Your task to perform on an android device: What's the weather today? Image 0: 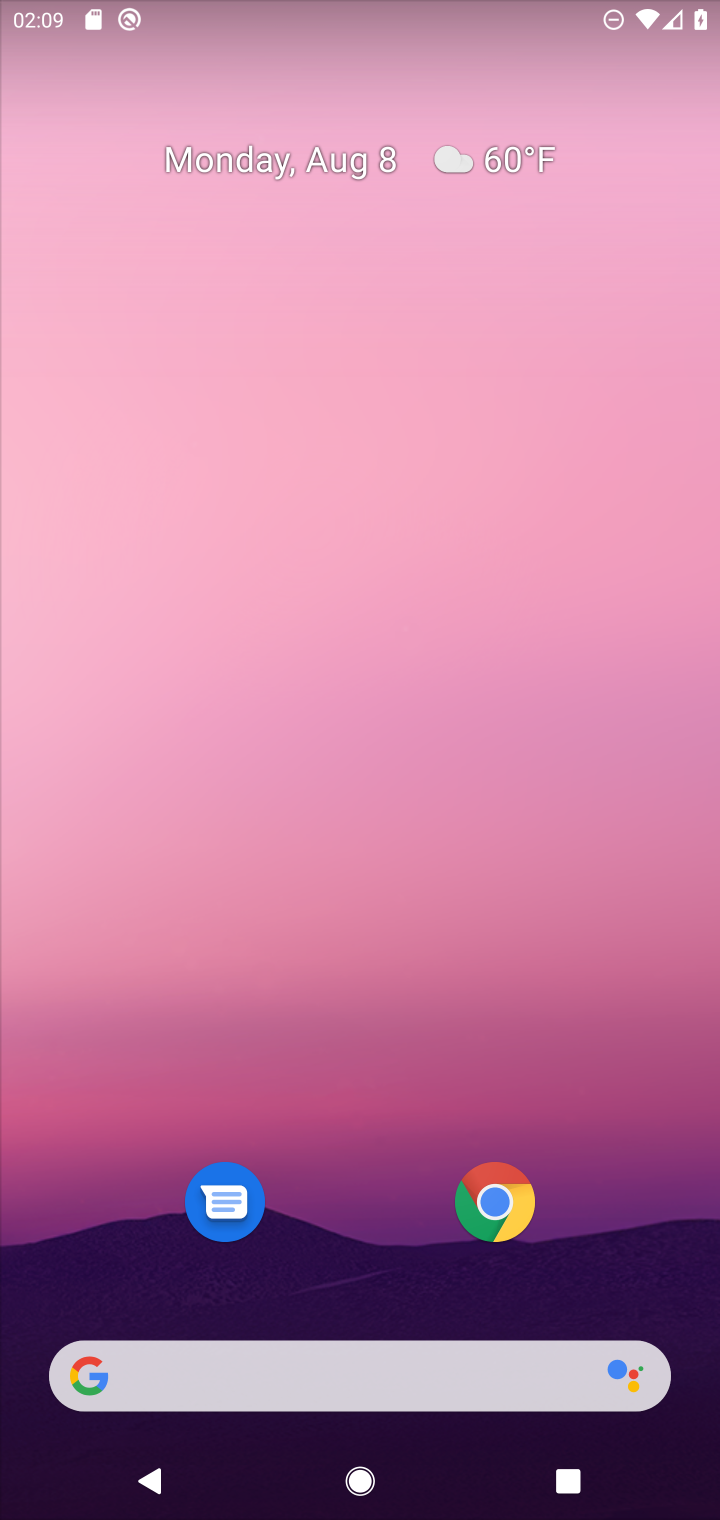
Step 0: press home button
Your task to perform on an android device: What's the weather today? Image 1: 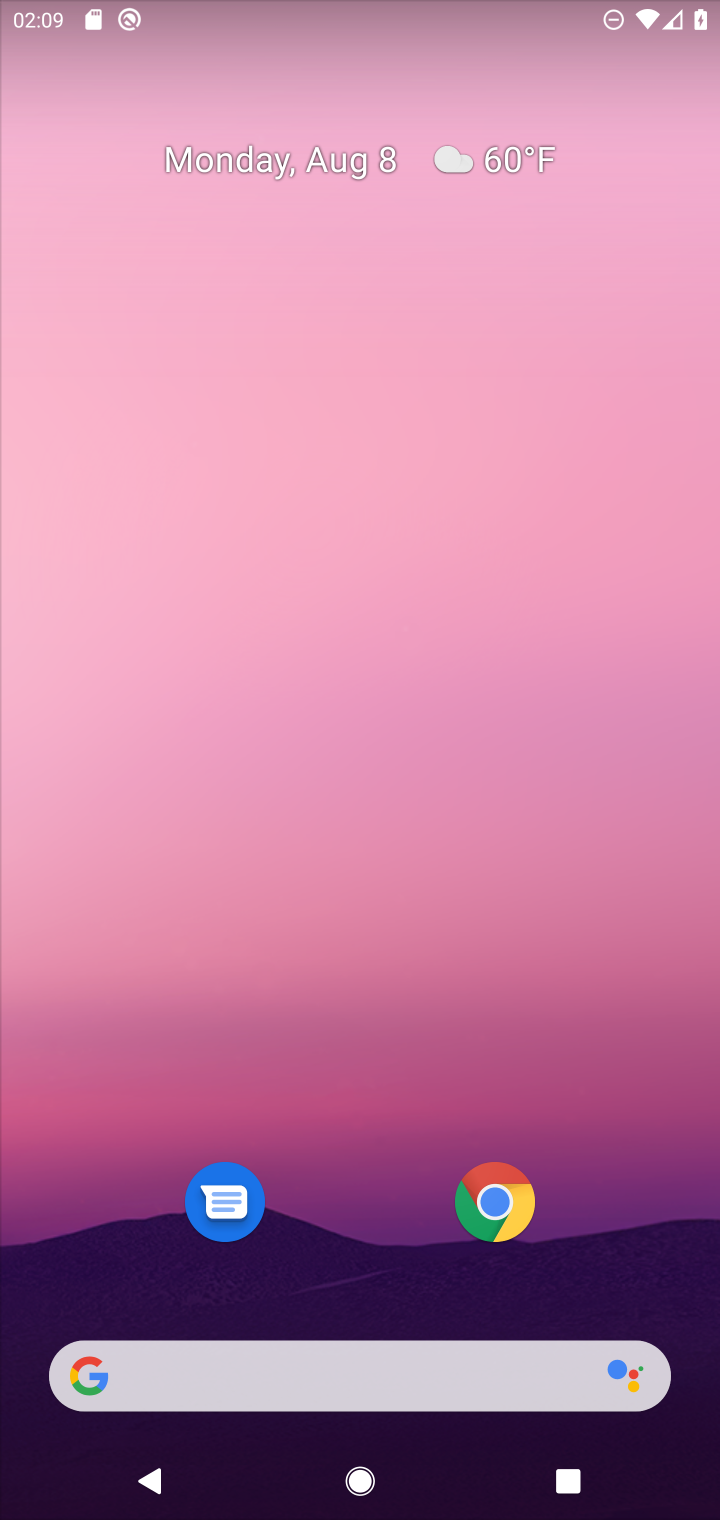
Step 1: drag from (634, 1174) to (629, 341)
Your task to perform on an android device: What's the weather today? Image 2: 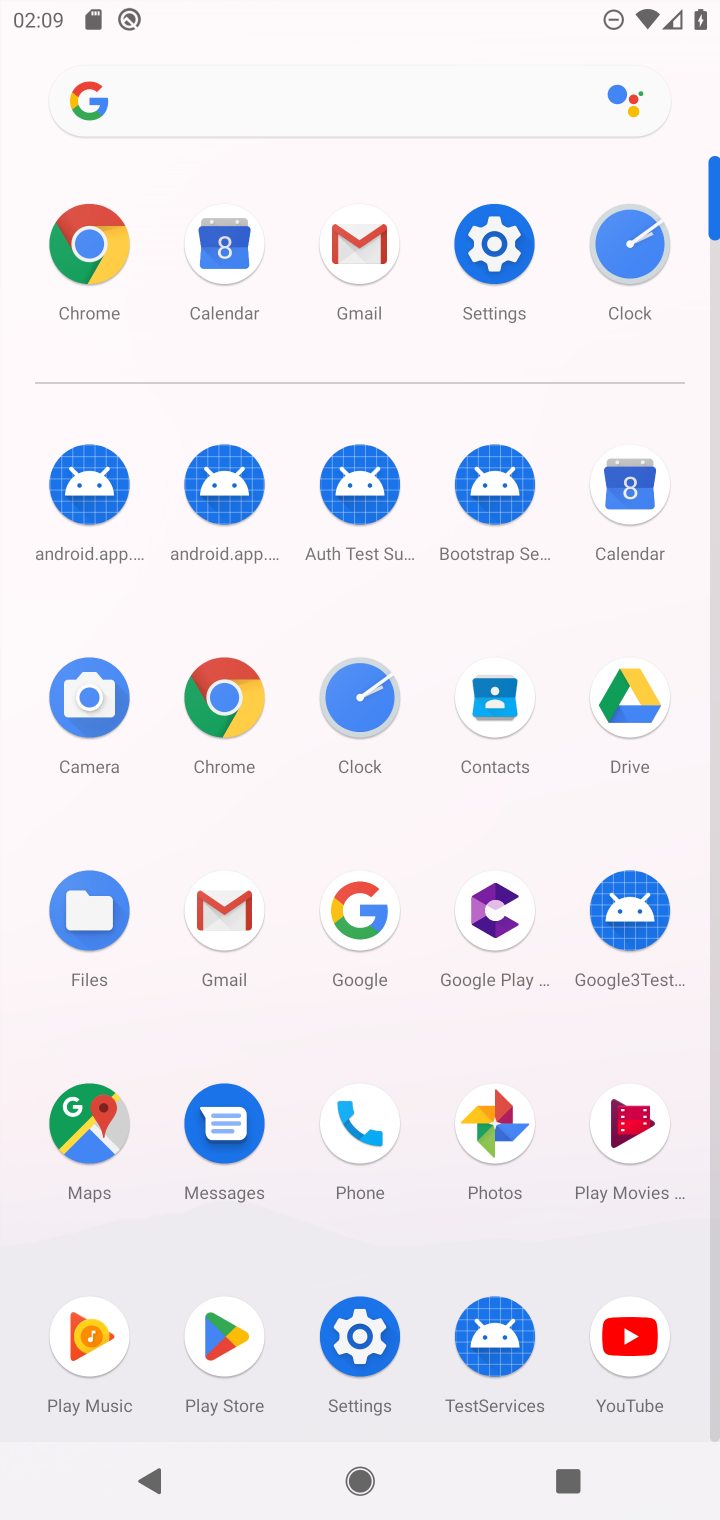
Step 2: press home button
Your task to perform on an android device: What's the weather today? Image 3: 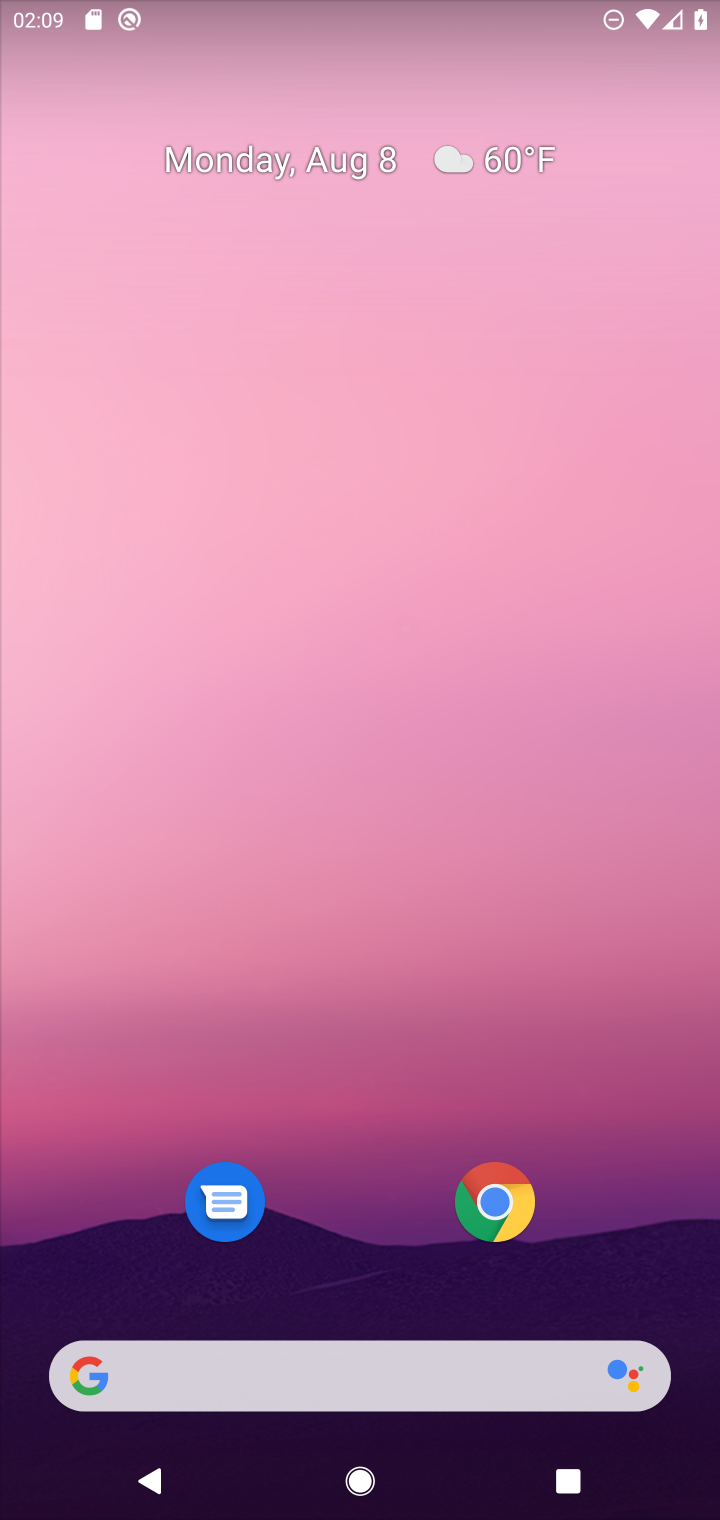
Step 3: click (449, 1377)
Your task to perform on an android device: What's the weather today? Image 4: 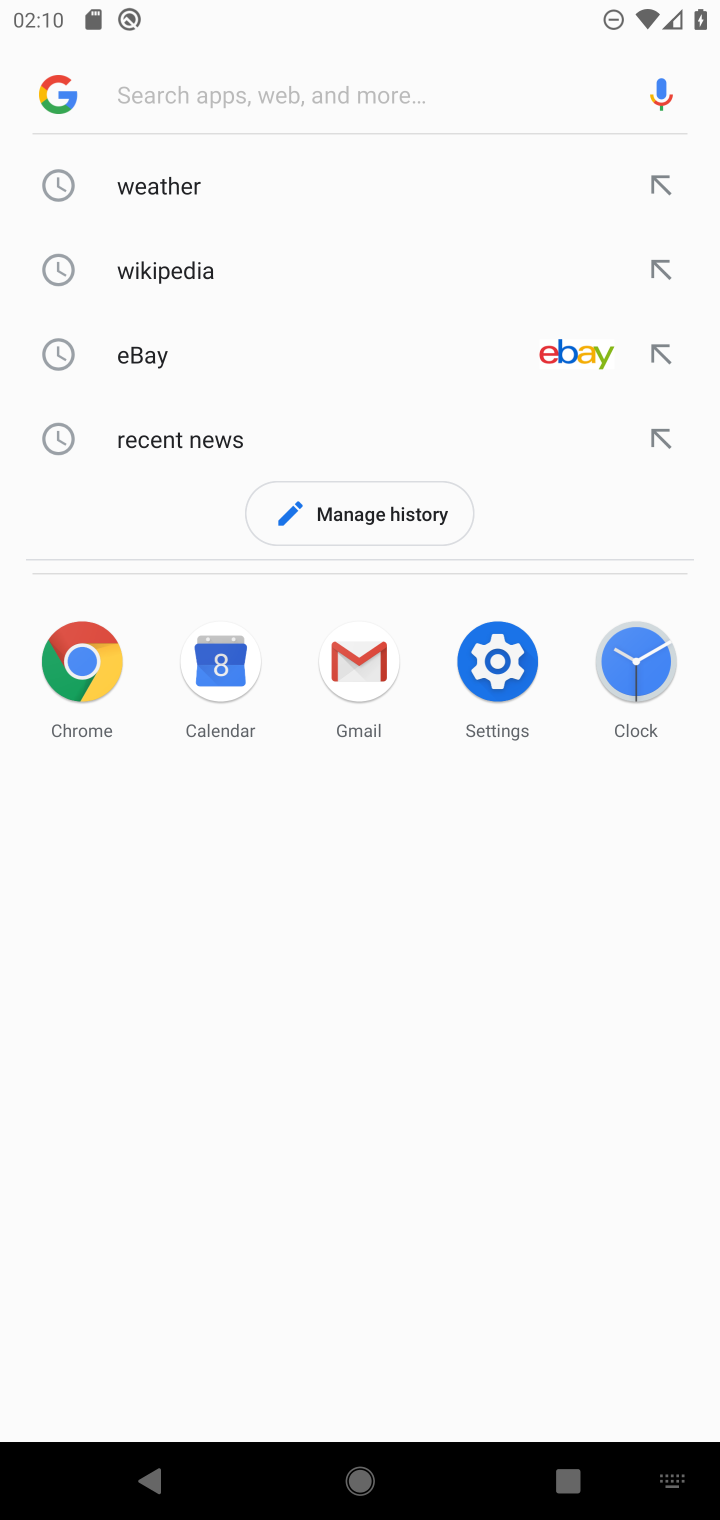
Step 4: click (178, 173)
Your task to perform on an android device: What's the weather today? Image 5: 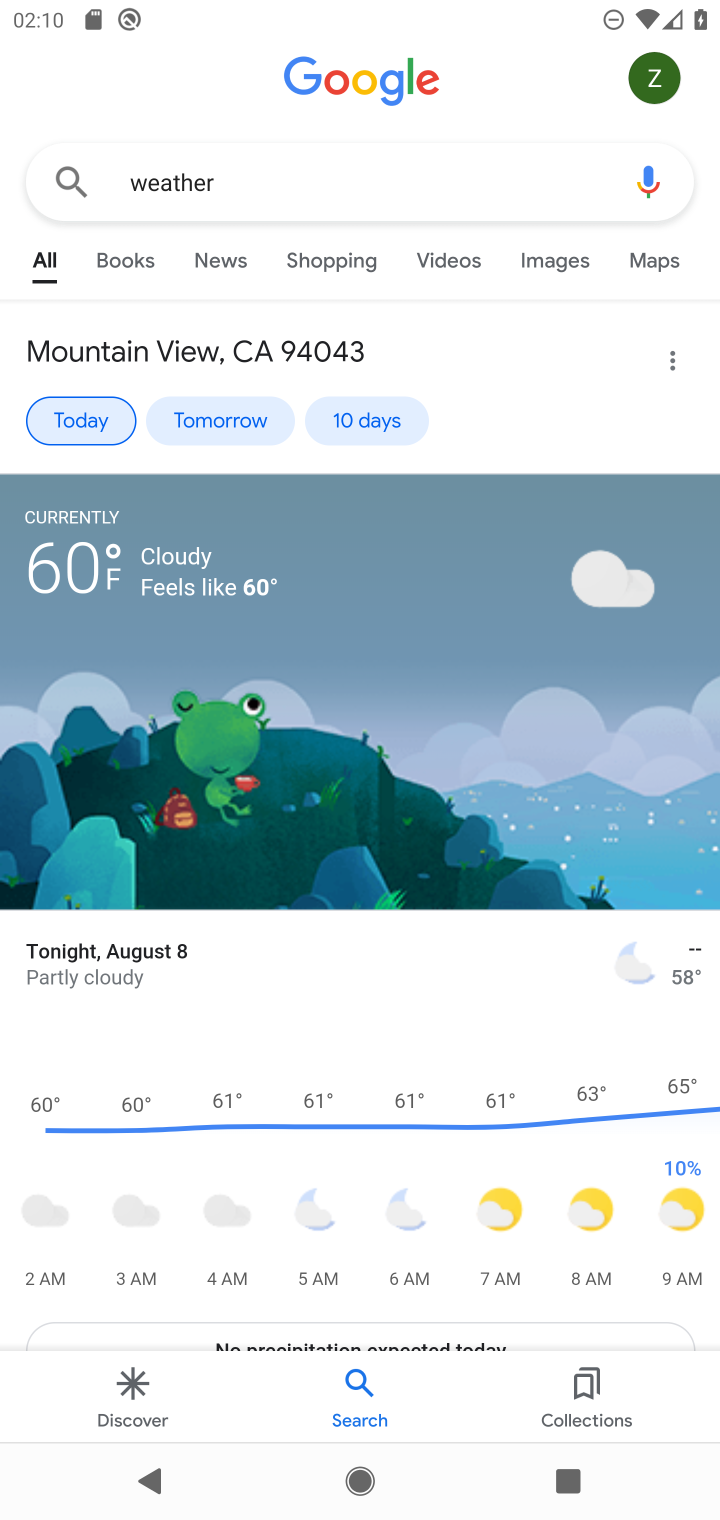
Step 5: task complete